Your task to perform on an android device: Show me the alarms in the clock app Image 0: 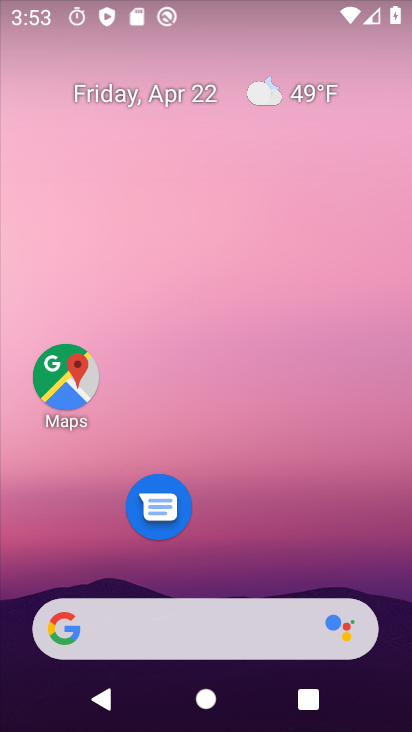
Step 0: drag from (245, 522) to (291, 123)
Your task to perform on an android device: Show me the alarms in the clock app Image 1: 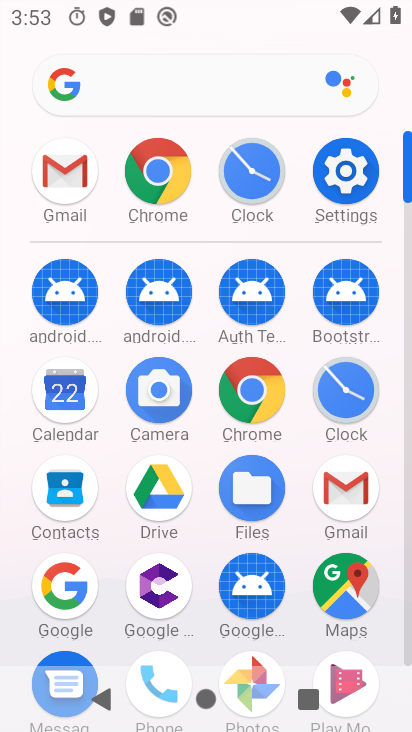
Step 1: click (242, 165)
Your task to perform on an android device: Show me the alarms in the clock app Image 2: 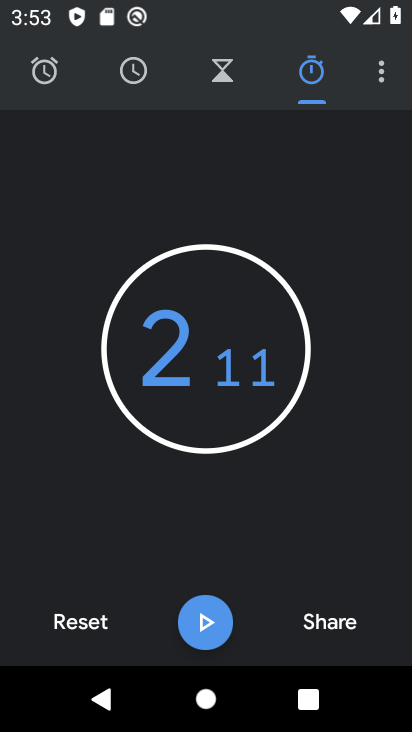
Step 2: click (50, 63)
Your task to perform on an android device: Show me the alarms in the clock app Image 3: 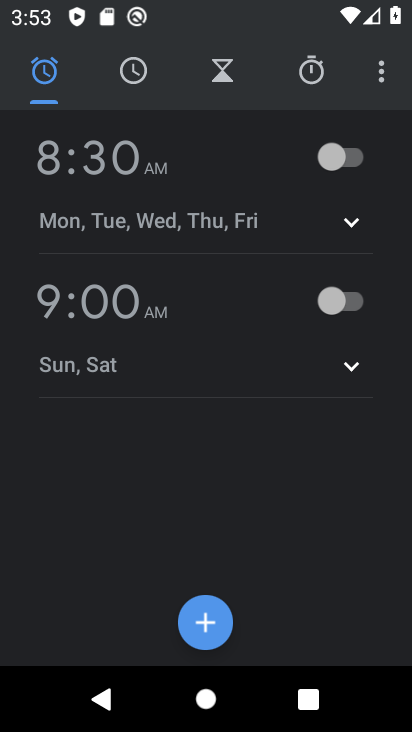
Step 3: task complete